Your task to perform on an android device: change the upload size in google photos Image 0: 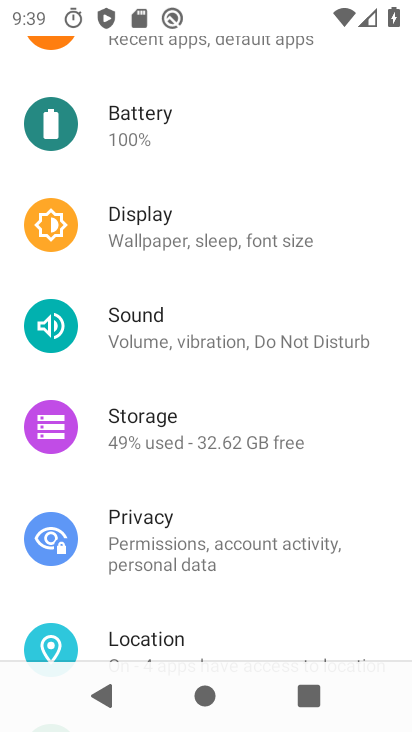
Step 0: press home button
Your task to perform on an android device: change the upload size in google photos Image 1: 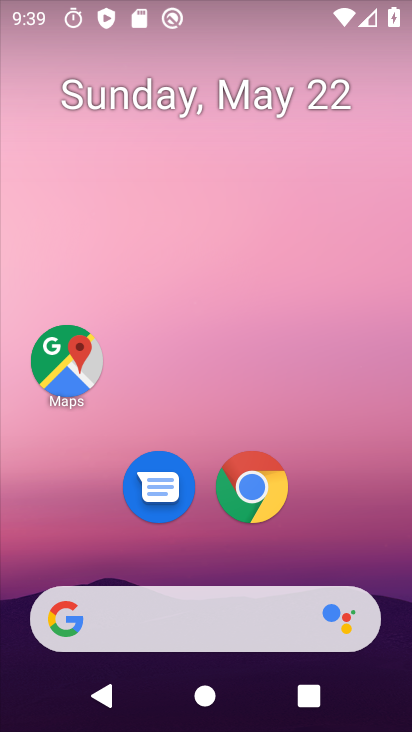
Step 1: drag from (228, 556) to (194, 86)
Your task to perform on an android device: change the upload size in google photos Image 2: 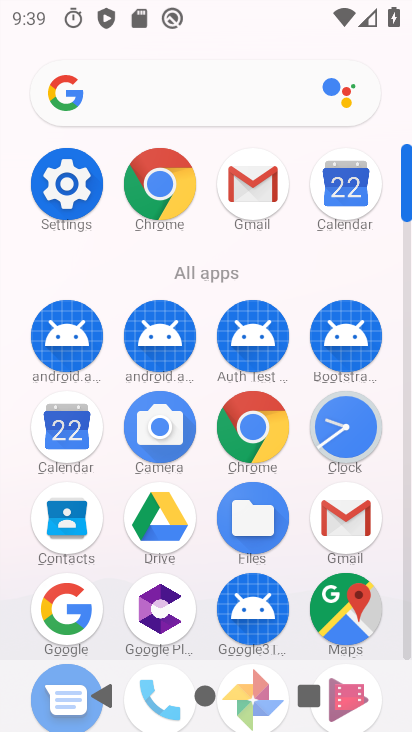
Step 2: drag from (209, 545) to (224, 178)
Your task to perform on an android device: change the upload size in google photos Image 3: 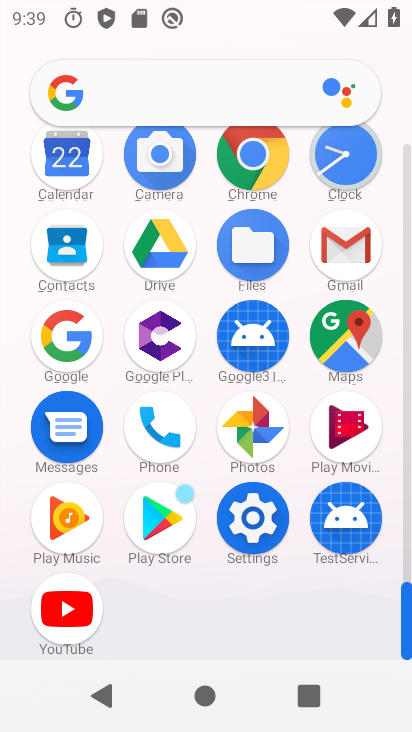
Step 3: click (258, 425)
Your task to perform on an android device: change the upload size in google photos Image 4: 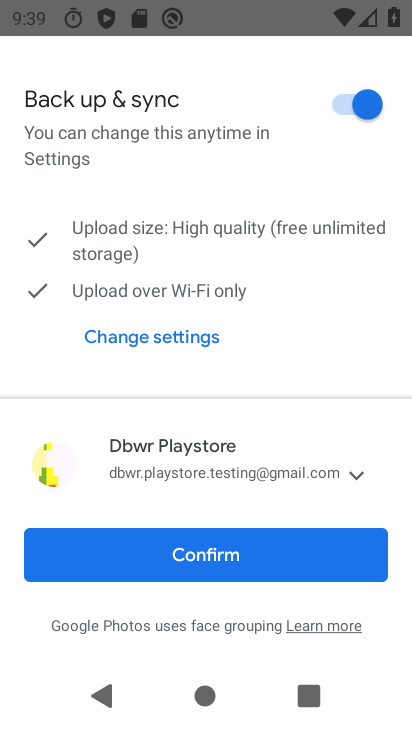
Step 4: click (193, 563)
Your task to perform on an android device: change the upload size in google photos Image 5: 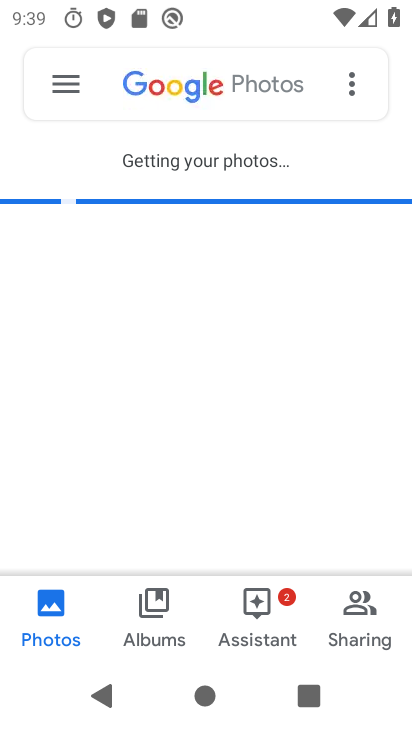
Step 5: click (73, 90)
Your task to perform on an android device: change the upload size in google photos Image 6: 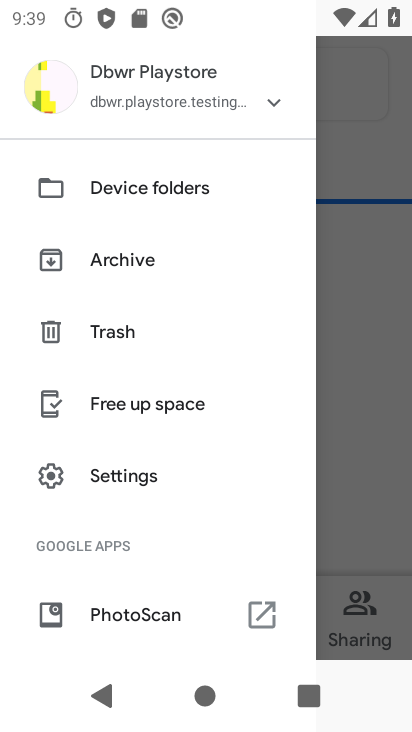
Step 6: click (128, 482)
Your task to perform on an android device: change the upload size in google photos Image 7: 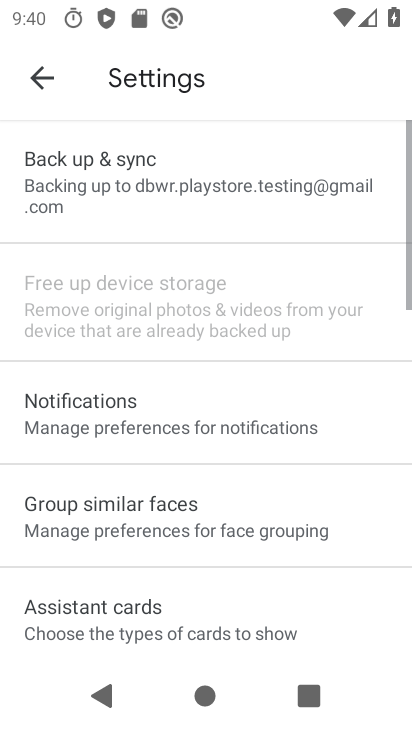
Step 7: click (229, 511)
Your task to perform on an android device: change the upload size in google photos Image 8: 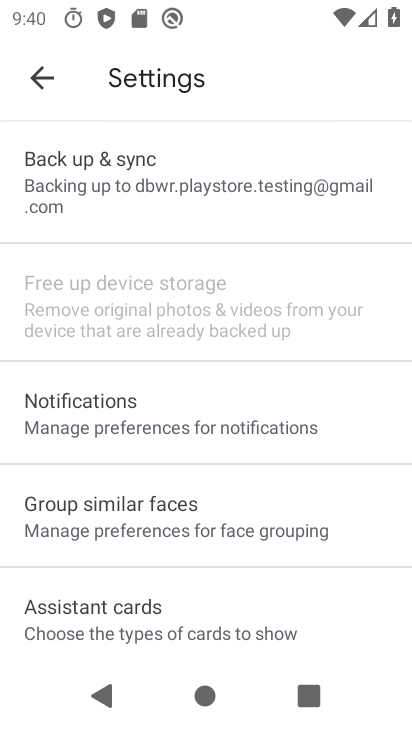
Step 8: click (139, 184)
Your task to perform on an android device: change the upload size in google photos Image 9: 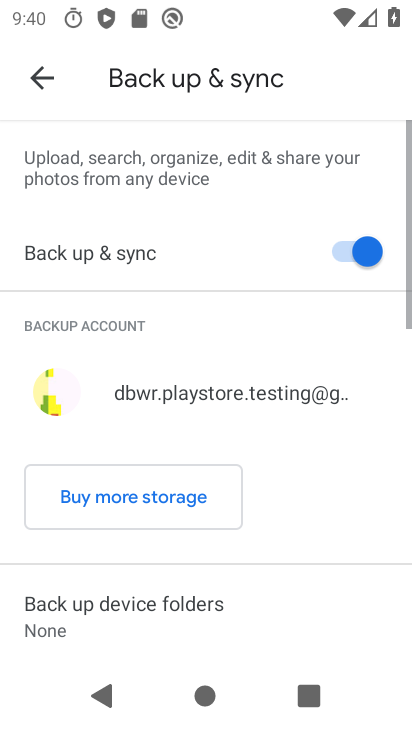
Step 9: drag from (234, 578) to (291, 115)
Your task to perform on an android device: change the upload size in google photos Image 10: 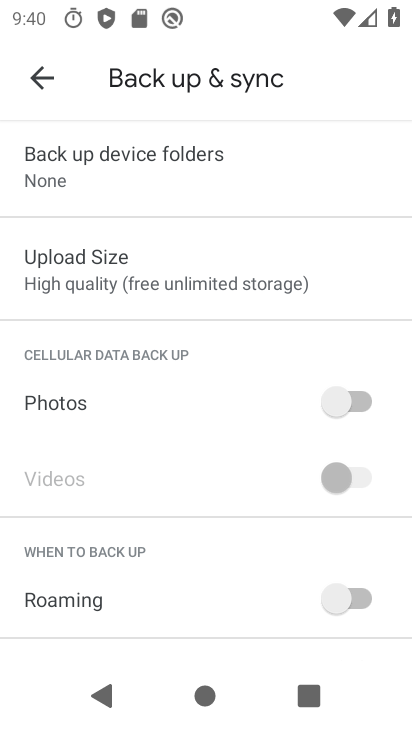
Step 10: click (133, 282)
Your task to perform on an android device: change the upload size in google photos Image 11: 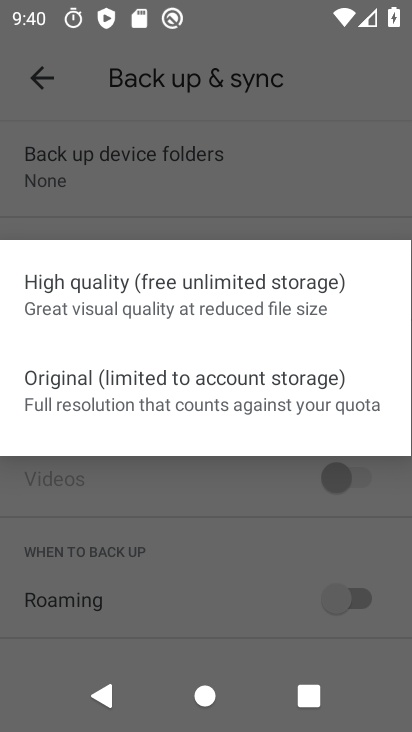
Step 11: click (141, 420)
Your task to perform on an android device: change the upload size in google photos Image 12: 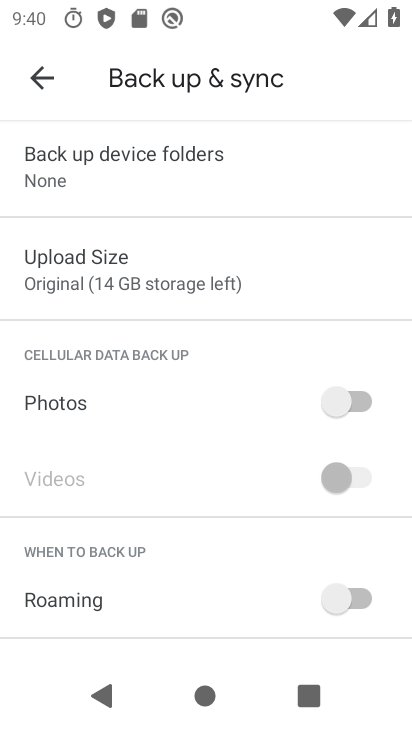
Step 12: task complete